Your task to perform on an android device: turn on notifications settings in the gmail app Image 0: 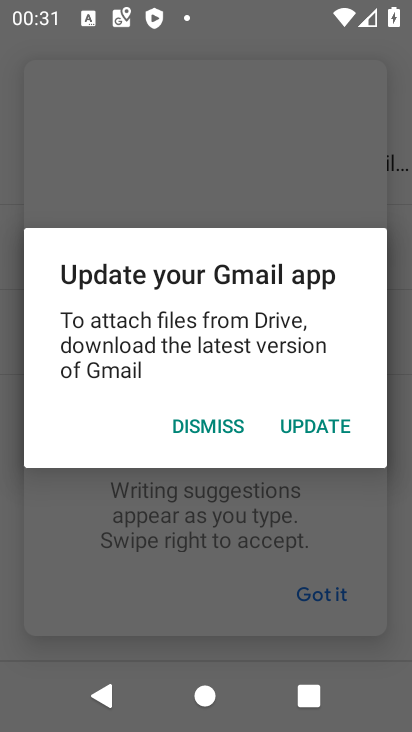
Step 0: press home button
Your task to perform on an android device: turn on notifications settings in the gmail app Image 1: 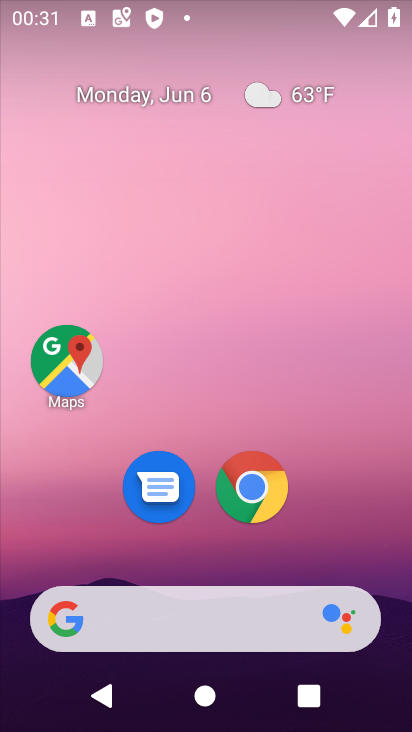
Step 1: drag from (398, 632) to (318, 34)
Your task to perform on an android device: turn on notifications settings in the gmail app Image 2: 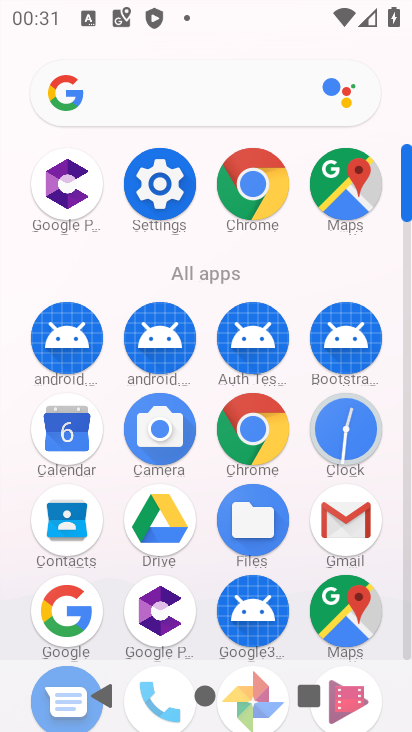
Step 2: click (348, 523)
Your task to perform on an android device: turn on notifications settings in the gmail app Image 3: 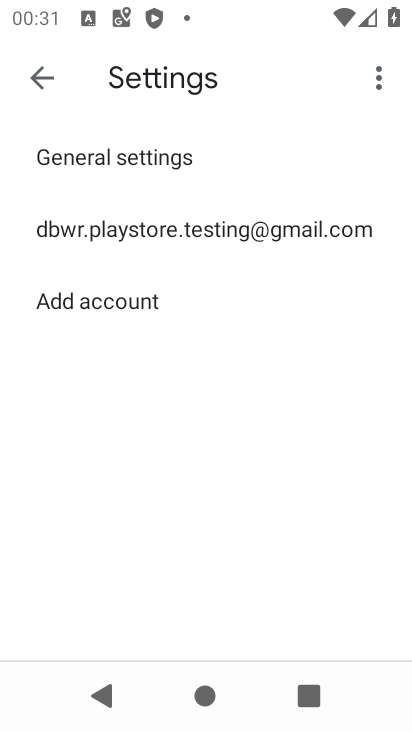
Step 3: click (159, 231)
Your task to perform on an android device: turn on notifications settings in the gmail app Image 4: 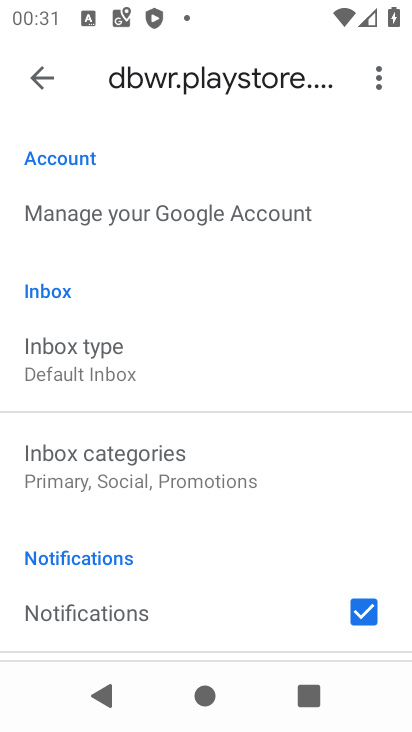
Step 4: drag from (236, 578) to (206, 130)
Your task to perform on an android device: turn on notifications settings in the gmail app Image 5: 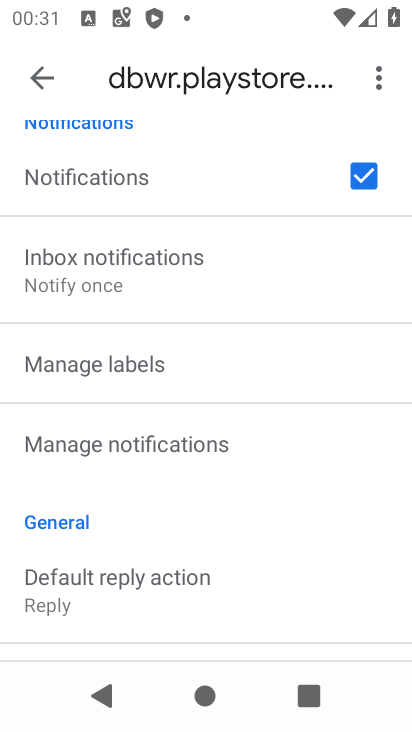
Step 5: click (126, 436)
Your task to perform on an android device: turn on notifications settings in the gmail app Image 6: 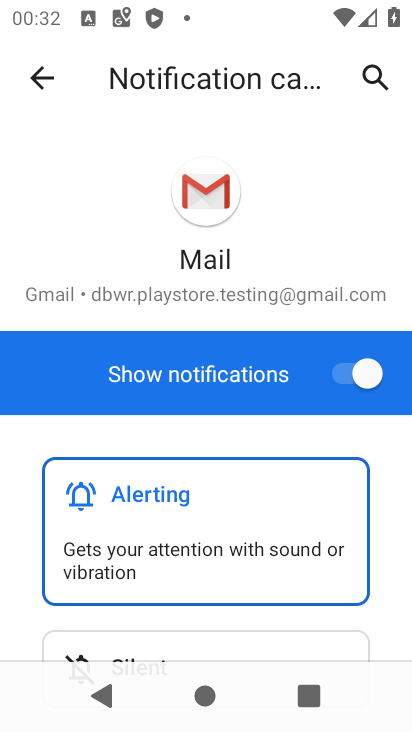
Step 6: task complete